Your task to perform on an android device: Go to calendar. Show me events next week Image 0: 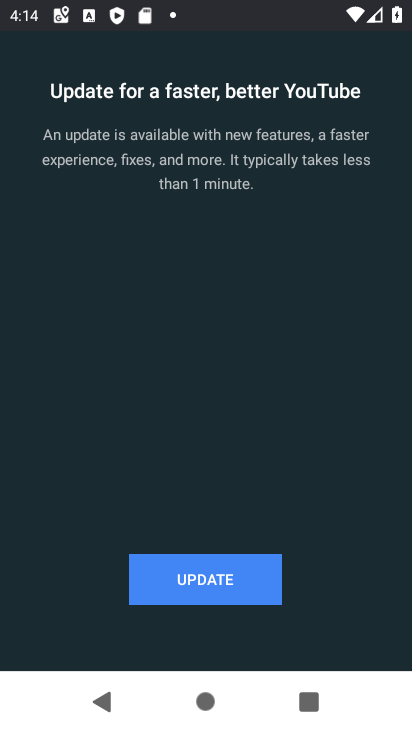
Step 0: press home button
Your task to perform on an android device: Go to calendar. Show me events next week Image 1: 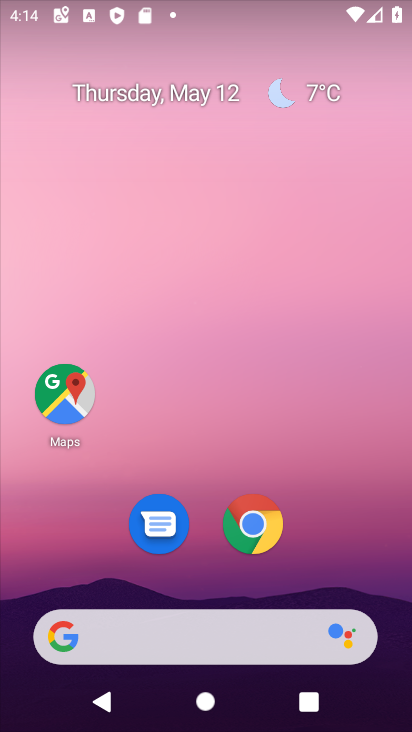
Step 1: drag from (340, 489) to (355, 0)
Your task to perform on an android device: Go to calendar. Show me events next week Image 2: 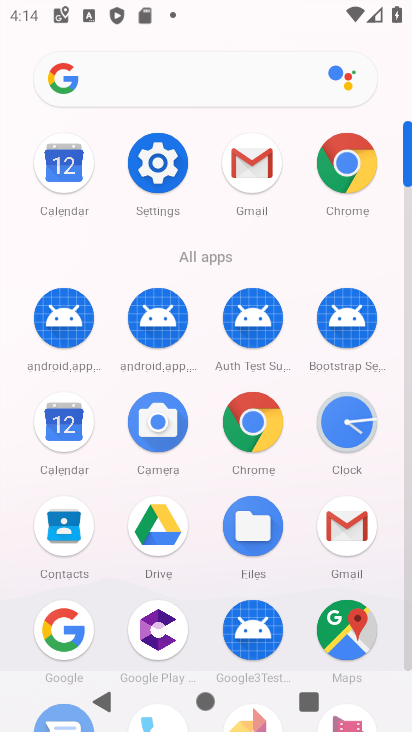
Step 2: click (62, 164)
Your task to perform on an android device: Go to calendar. Show me events next week Image 3: 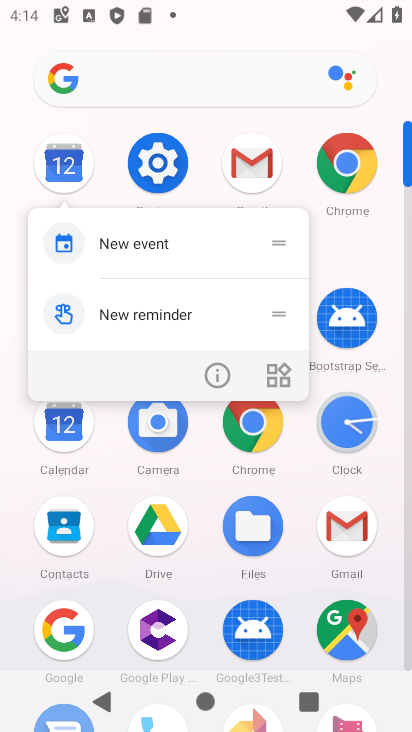
Step 3: click (79, 158)
Your task to perform on an android device: Go to calendar. Show me events next week Image 4: 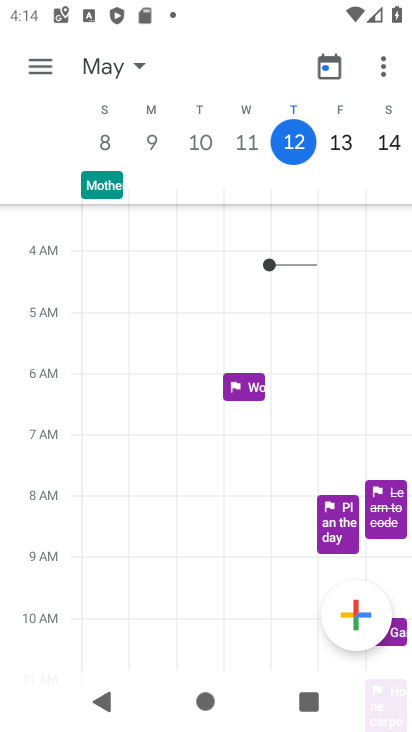
Step 4: task complete